Your task to perform on an android device: Open the web browser Image 0: 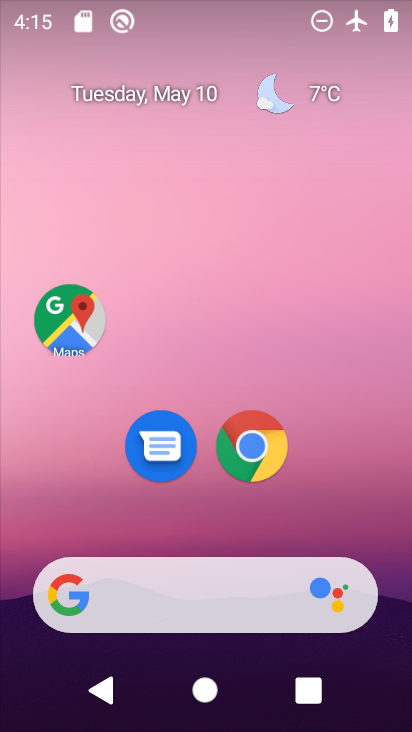
Step 0: click (255, 448)
Your task to perform on an android device: Open the web browser Image 1: 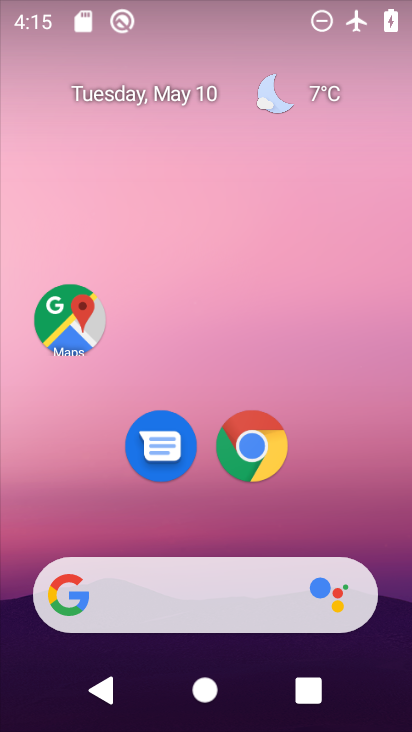
Step 1: press home button
Your task to perform on an android device: Open the web browser Image 2: 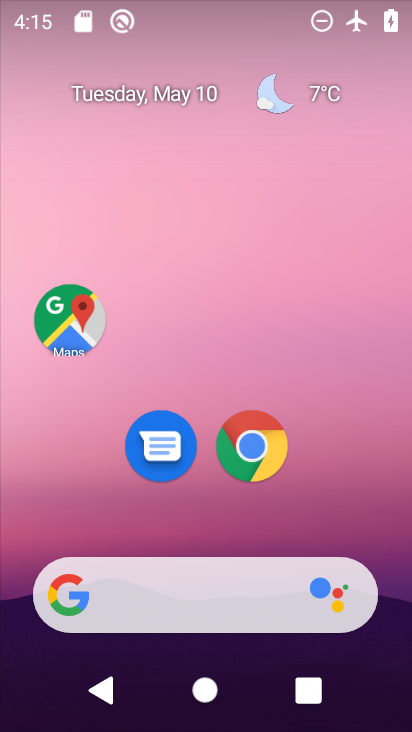
Step 2: click (277, 458)
Your task to perform on an android device: Open the web browser Image 3: 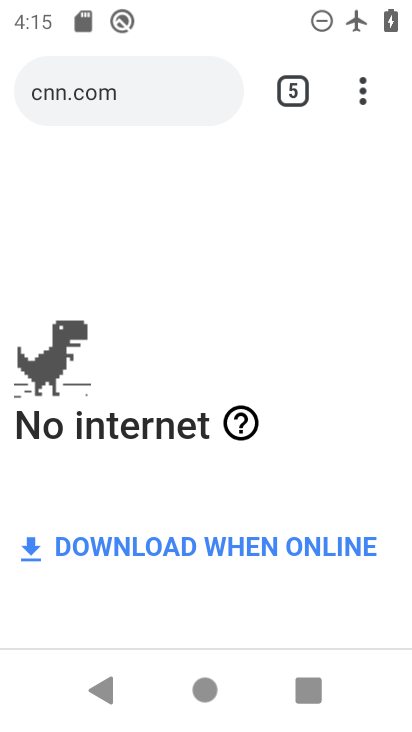
Step 3: task complete